Your task to perform on an android device: show emergency info Image 0: 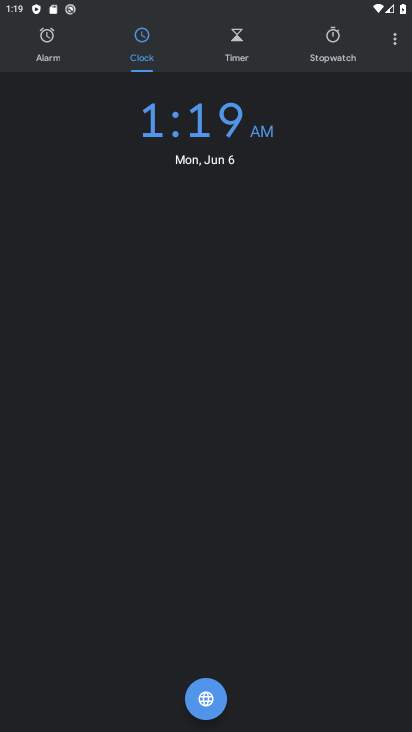
Step 0: press home button
Your task to perform on an android device: show emergency info Image 1: 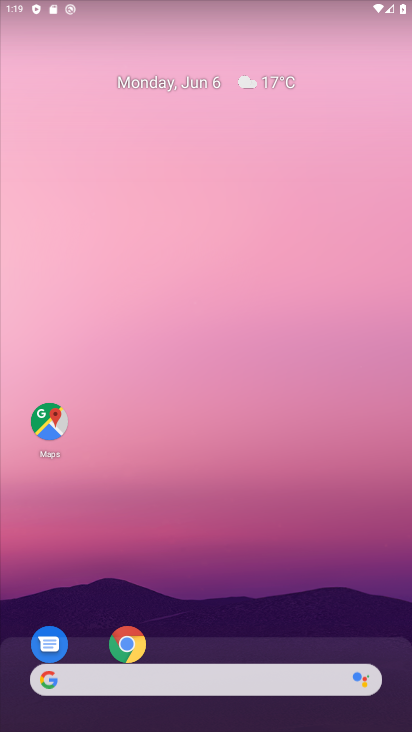
Step 1: drag from (327, 640) to (286, 263)
Your task to perform on an android device: show emergency info Image 2: 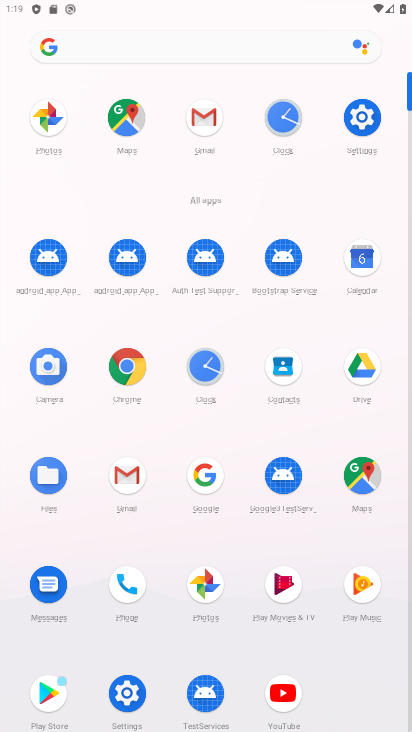
Step 2: click (367, 138)
Your task to perform on an android device: show emergency info Image 3: 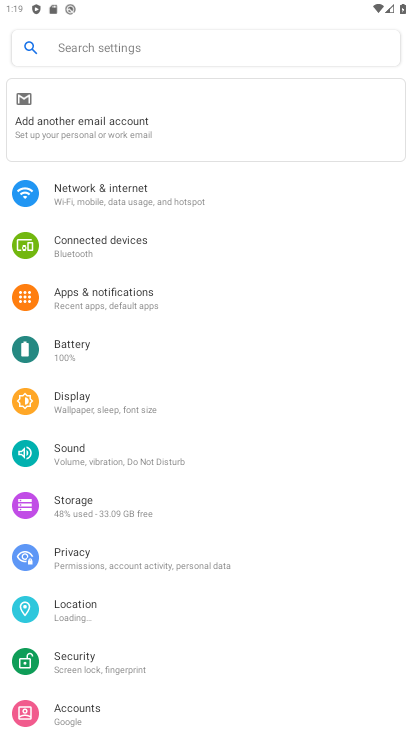
Step 3: drag from (212, 580) to (186, 254)
Your task to perform on an android device: show emergency info Image 4: 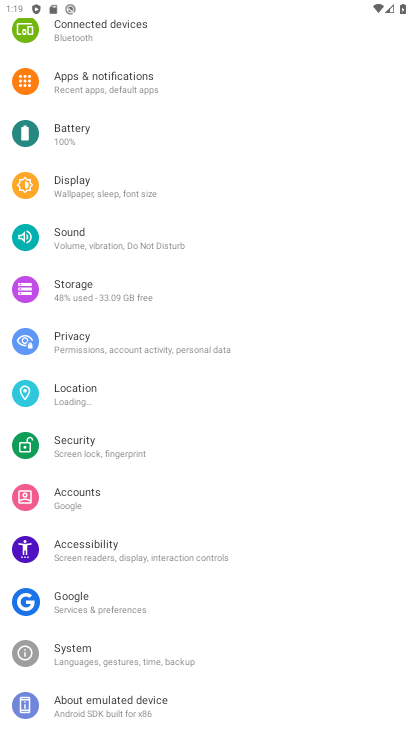
Step 4: drag from (234, 633) to (209, 282)
Your task to perform on an android device: show emergency info Image 5: 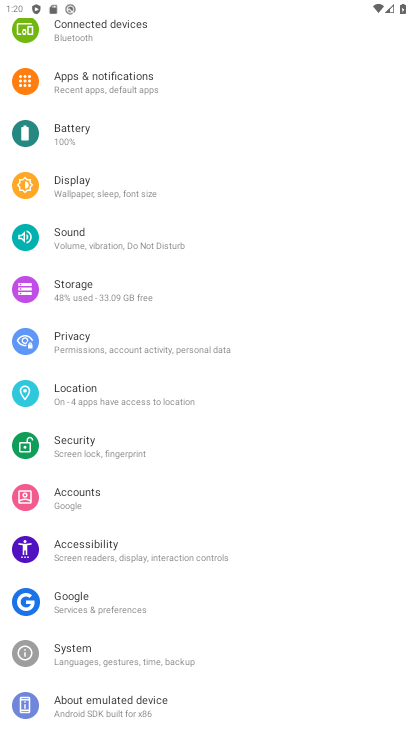
Step 5: click (143, 709)
Your task to perform on an android device: show emergency info Image 6: 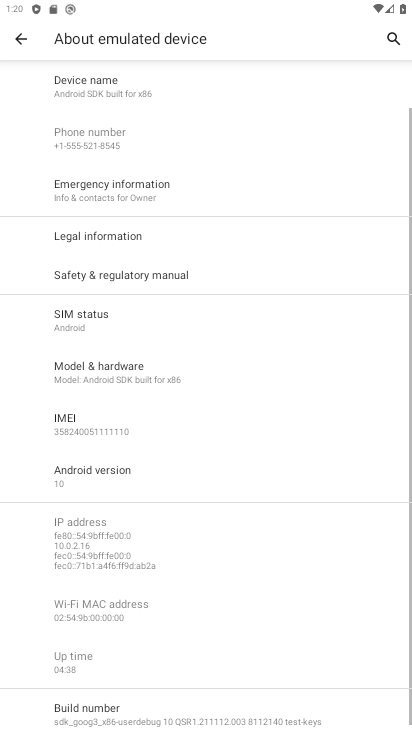
Step 6: click (164, 182)
Your task to perform on an android device: show emergency info Image 7: 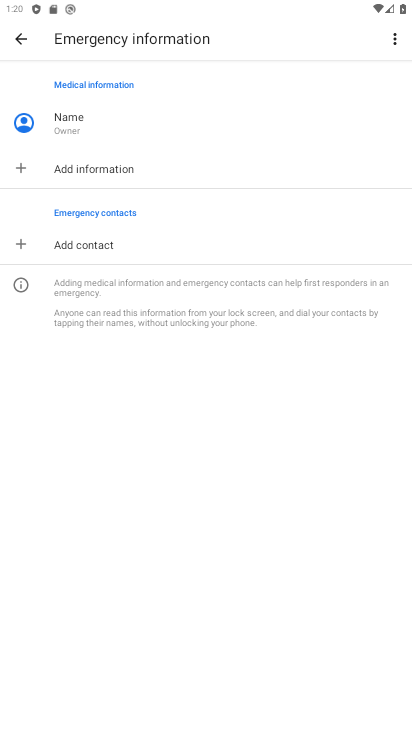
Step 7: task complete